Your task to perform on an android device: set the timer Image 0: 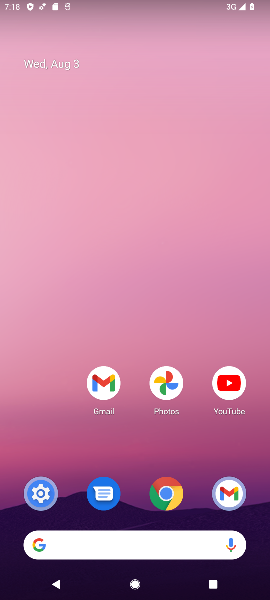
Step 0: drag from (143, 509) to (160, 124)
Your task to perform on an android device: set the timer Image 1: 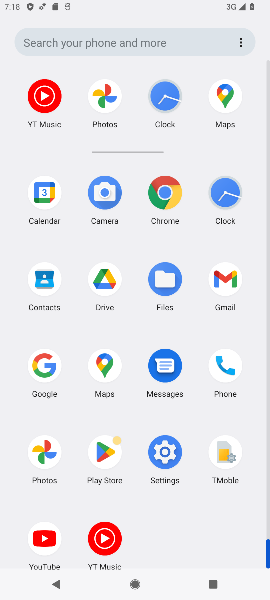
Step 1: click (163, 102)
Your task to perform on an android device: set the timer Image 2: 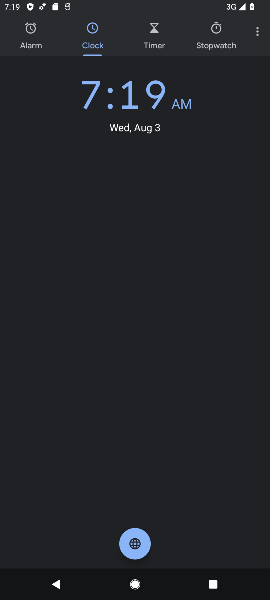
Step 2: click (148, 32)
Your task to perform on an android device: set the timer Image 3: 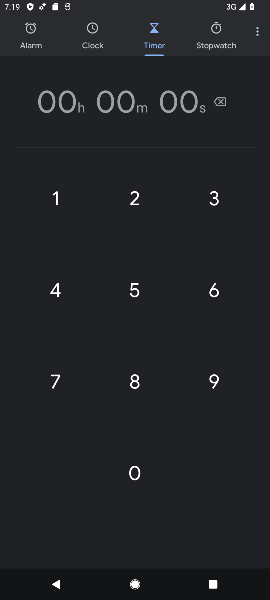
Step 3: click (94, 109)
Your task to perform on an android device: set the timer Image 4: 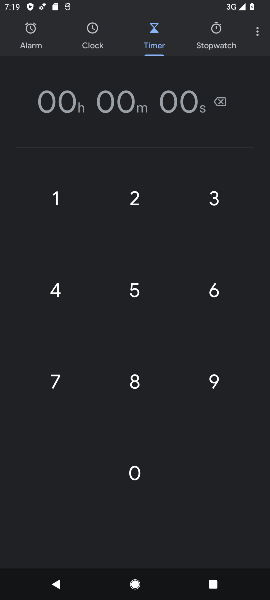
Step 4: type "9898988989 "
Your task to perform on an android device: set the timer Image 5: 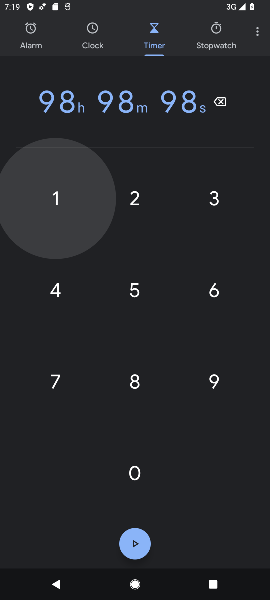
Step 5: click (142, 550)
Your task to perform on an android device: set the timer Image 6: 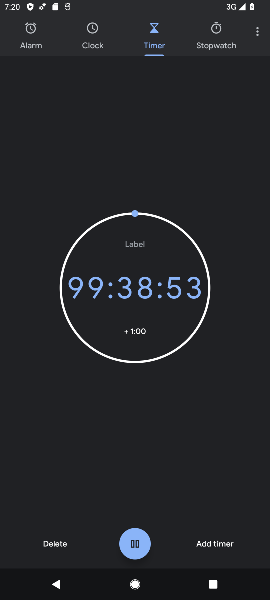
Step 6: task complete